Your task to perform on an android device: open a bookmark in the chrome app Image 0: 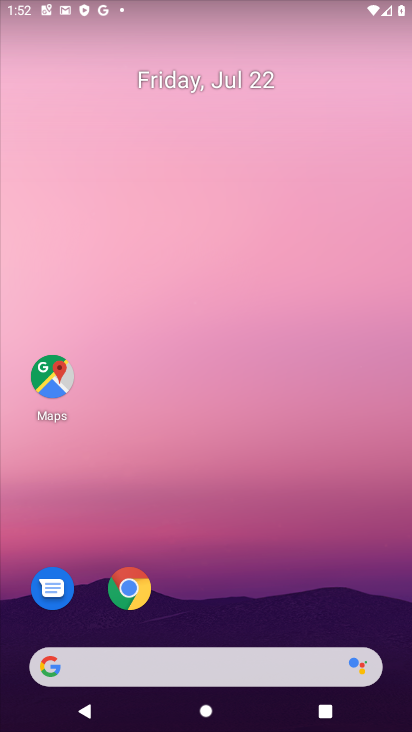
Step 0: click (116, 582)
Your task to perform on an android device: open a bookmark in the chrome app Image 1: 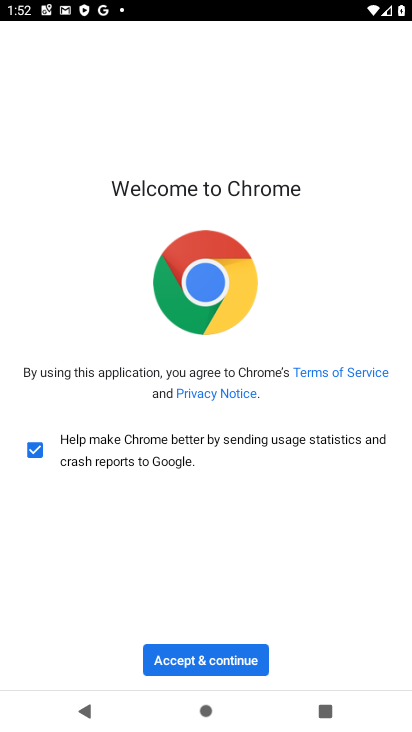
Step 1: click (189, 658)
Your task to perform on an android device: open a bookmark in the chrome app Image 2: 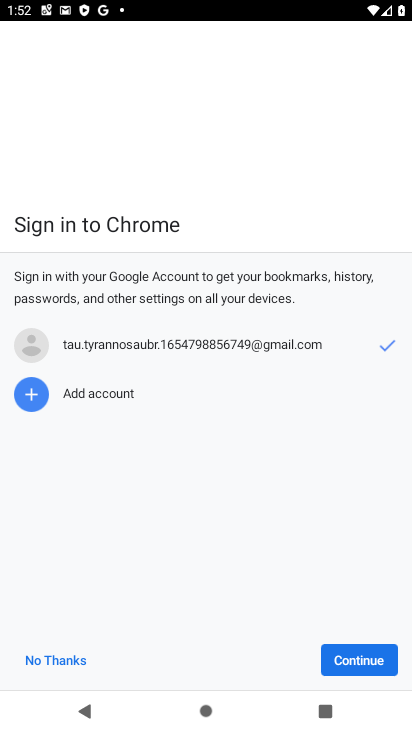
Step 2: click (344, 659)
Your task to perform on an android device: open a bookmark in the chrome app Image 3: 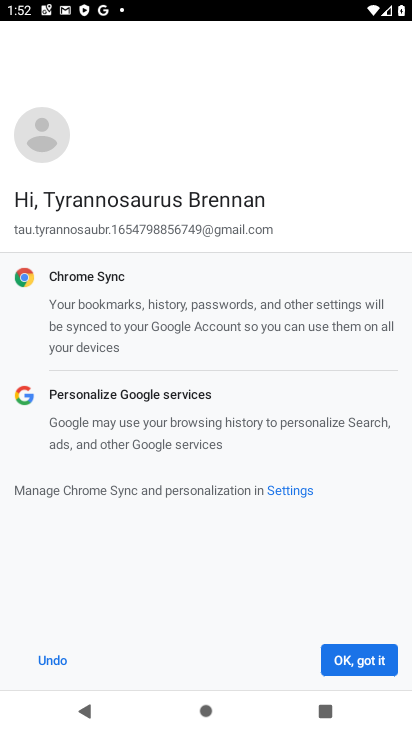
Step 3: click (353, 660)
Your task to perform on an android device: open a bookmark in the chrome app Image 4: 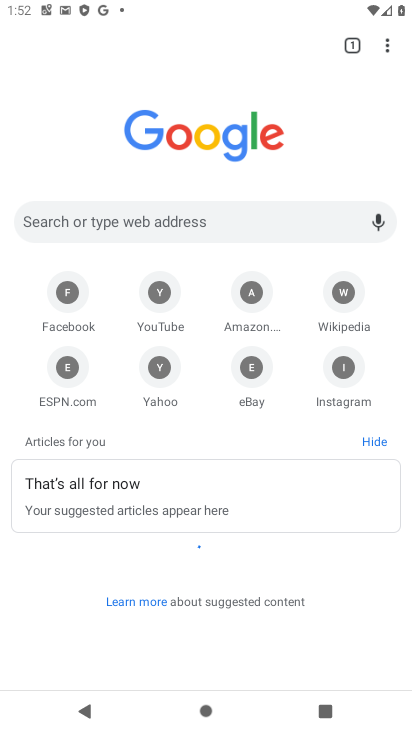
Step 4: drag from (389, 40) to (230, 176)
Your task to perform on an android device: open a bookmark in the chrome app Image 5: 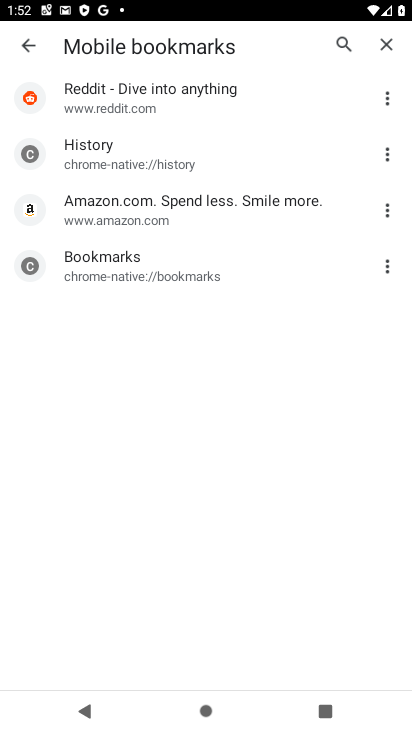
Step 5: click (108, 207)
Your task to perform on an android device: open a bookmark in the chrome app Image 6: 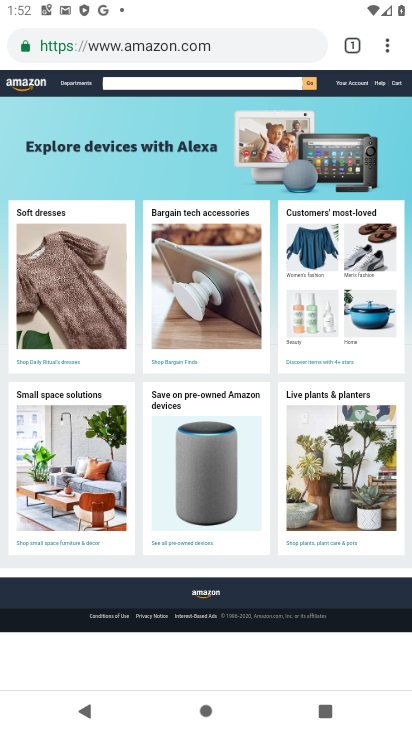
Step 6: task complete